Your task to perform on an android device: Open Wikipedia Image 0: 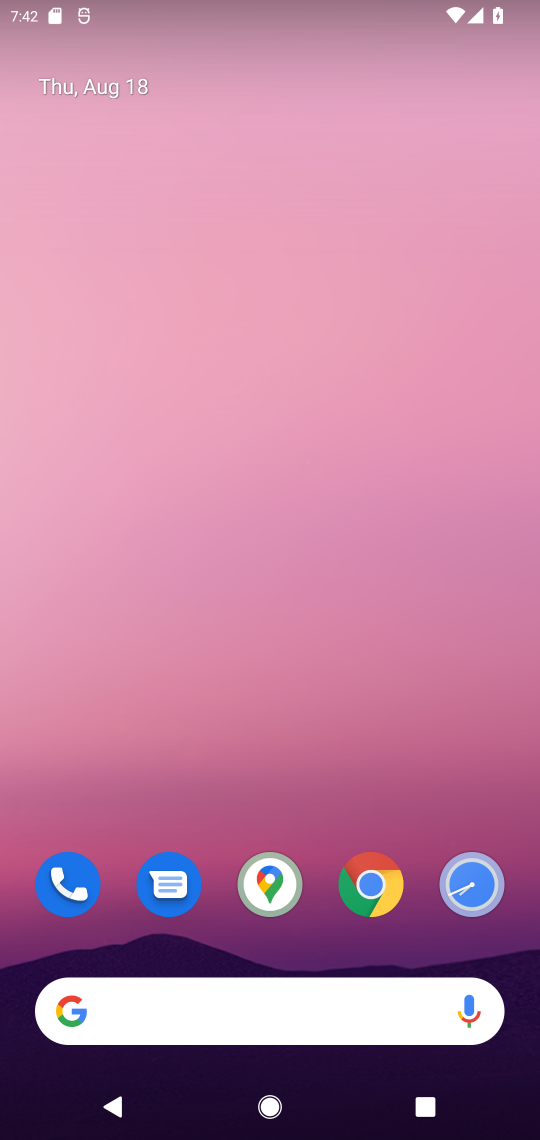
Step 0: click (191, 992)
Your task to perform on an android device: Open Wikipedia Image 1: 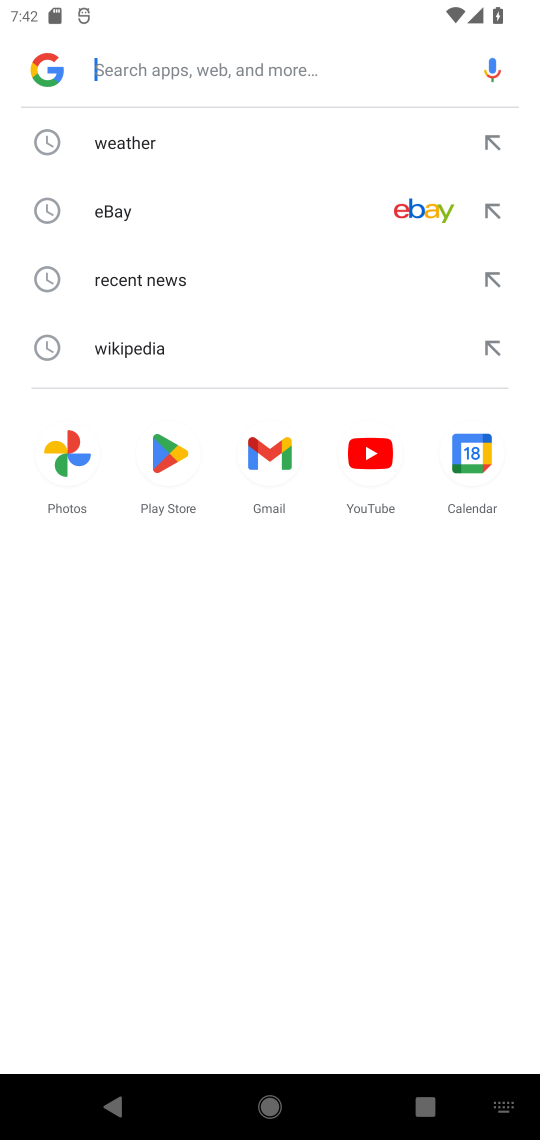
Step 1: click (204, 333)
Your task to perform on an android device: Open Wikipedia Image 2: 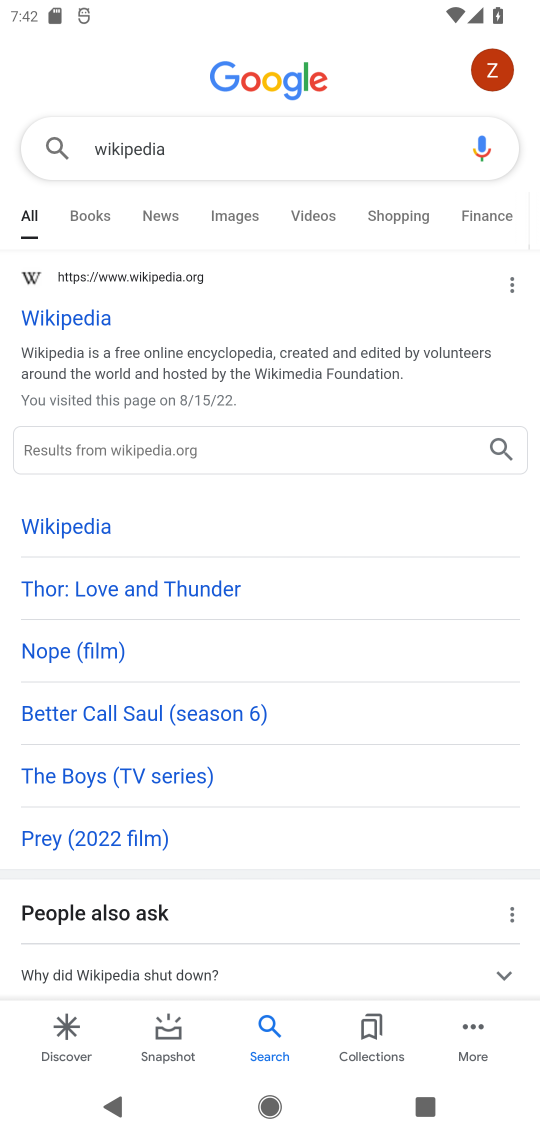
Step 2: click (96, 318)
Your task to perform on an android device: Open Wikipedia Image 3: 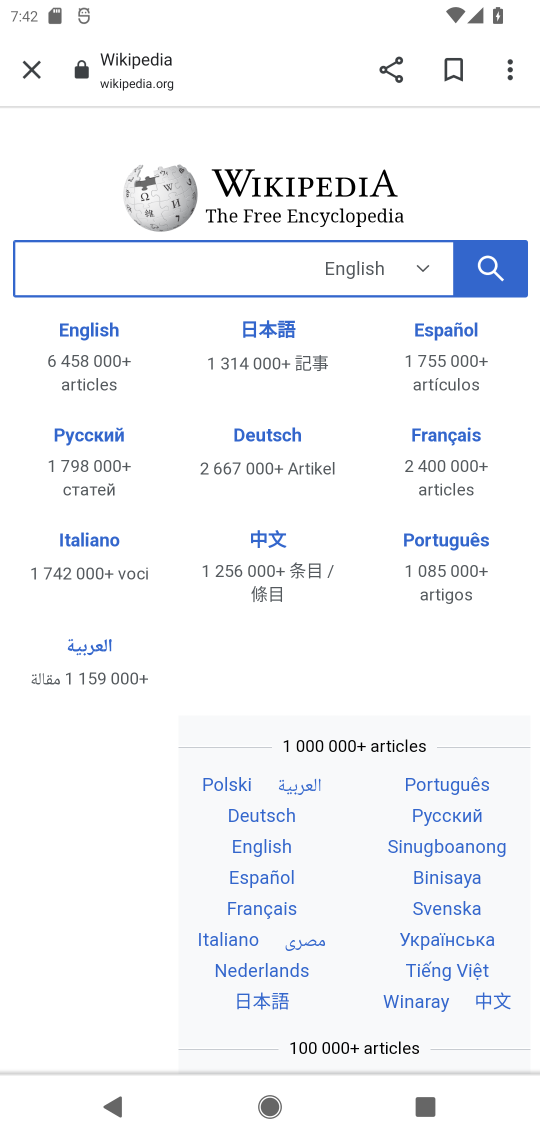
Step 3: task complete